Your task to perform on an android device: turn off priority inbox in the gmail app Image 0: 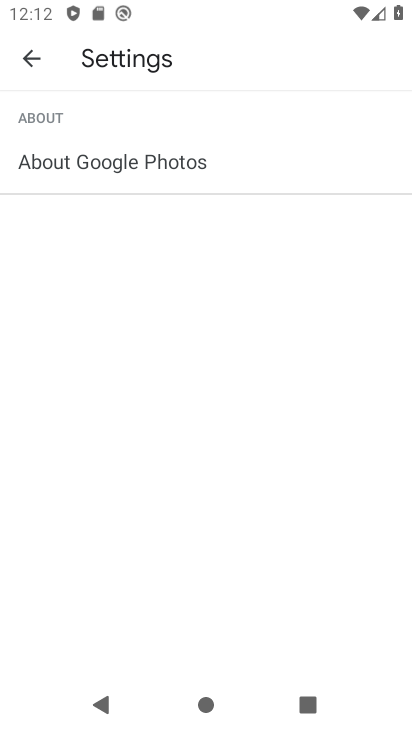
Step 0: click (30, 66)
Your task to perform on an android device: turn off priority inbox in the gmail app Image 1: 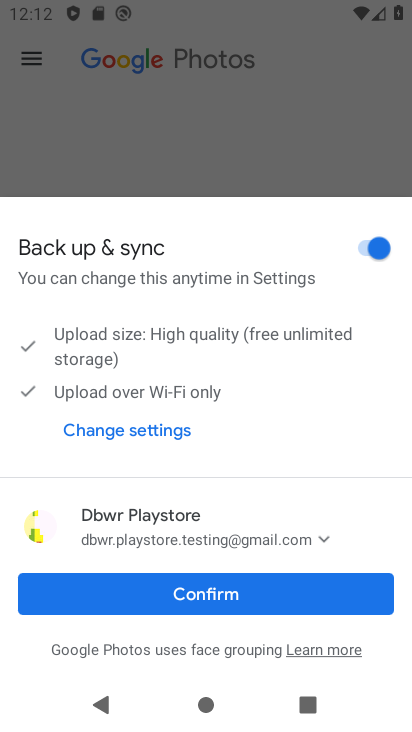
Step 1: click (43, 55)
Your task to perform on an android device: turn off priority inbox in the gmail app Image 2: 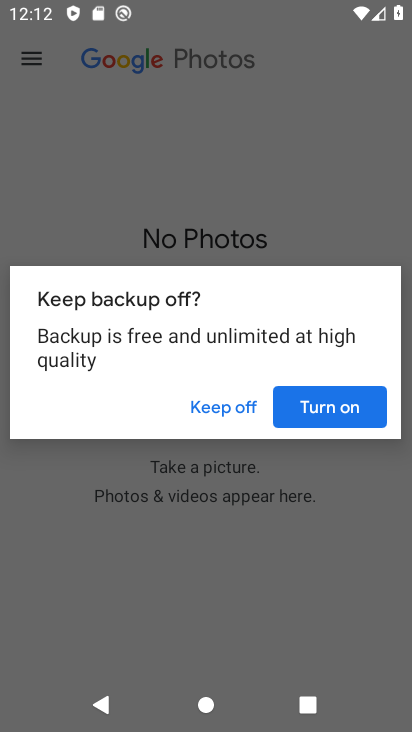
Step 2: press home button
Your task to perform on an android device: turn off priority inbox in the gmail app Image 3: 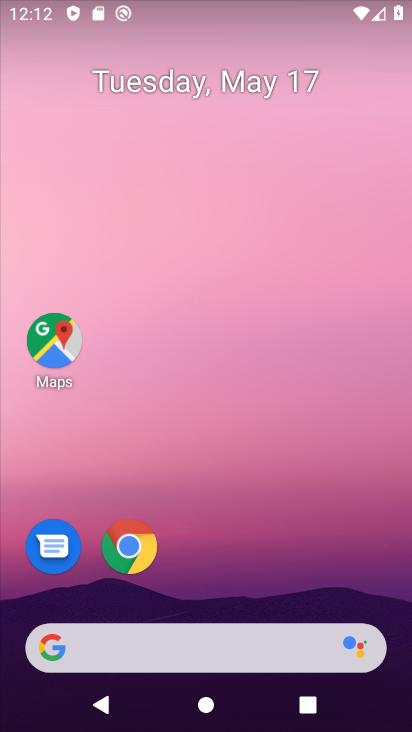
Step 3: drag from (351, 516) to (336, 0)
Your task to perform on an android device: turn off priority inbox in the gmail app Image 4: 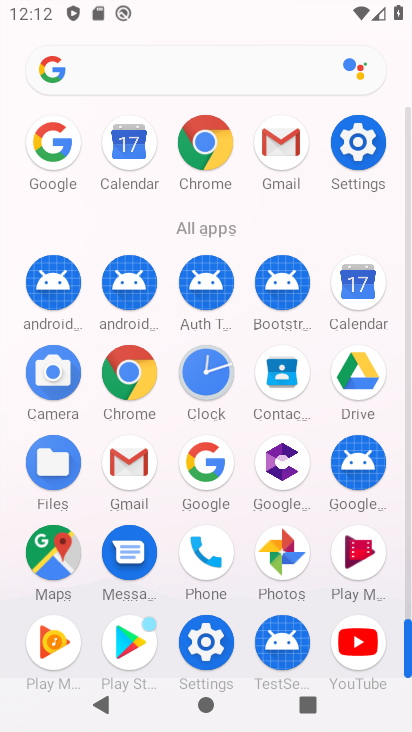
Step 4: click (296, 141)
Your task to perform on an android device: turn off priority inbox in the gmail app Image 5: 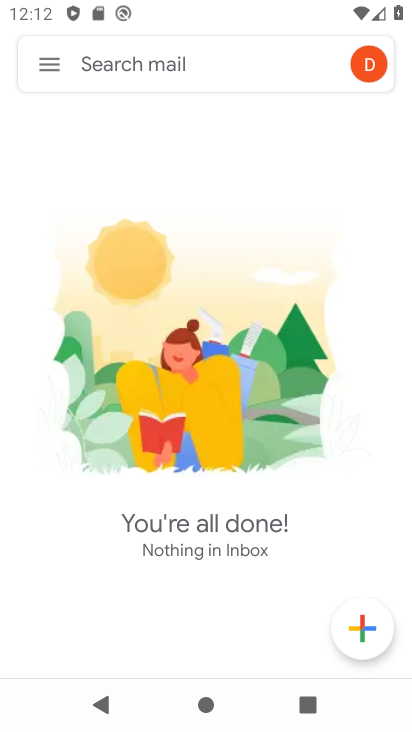
Step 5: click (54, 74)
Your task to perform on an android device: turn off priority inbox in the gmail app Image 6: 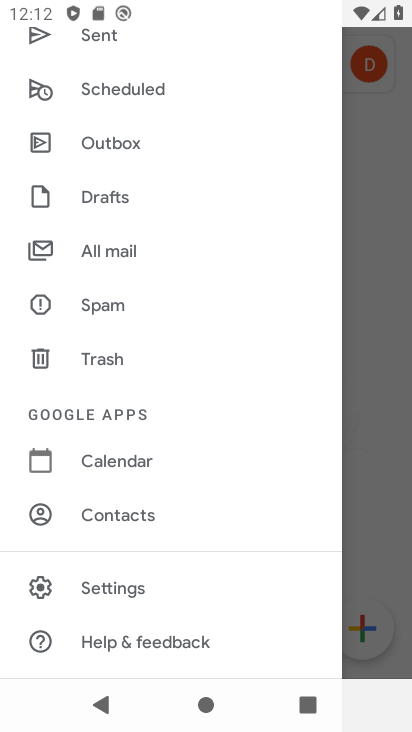
Step 6: drag from (94, 601) to (92, 233)
Your task to perform on an android device: turn off priority inbox in the gmail app Image 7: 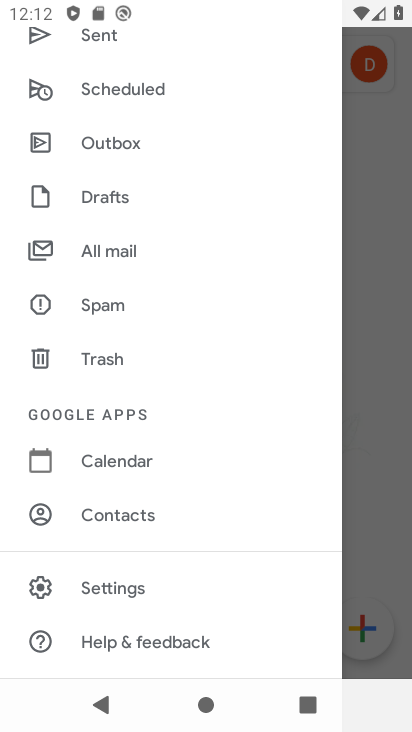
Step 7: click (107, 577)
Your task to perform on an android device: turn off priority inbox in the gmail app Image 8: 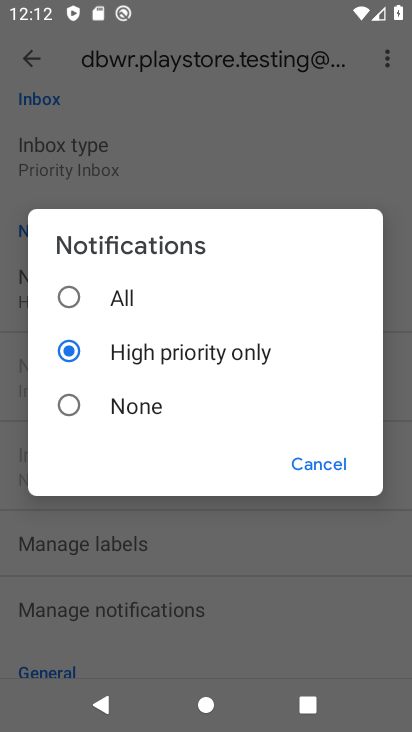
Step 8: click (92, 399)
Your task to perform on an android device: turn off priority inbox in the gmail app Image 9: 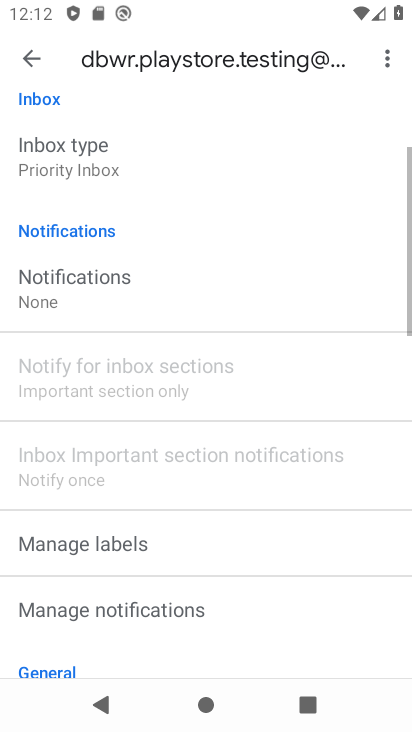
Step 9: task complete